Your task to perform on an android device: turn on location history Image 0: 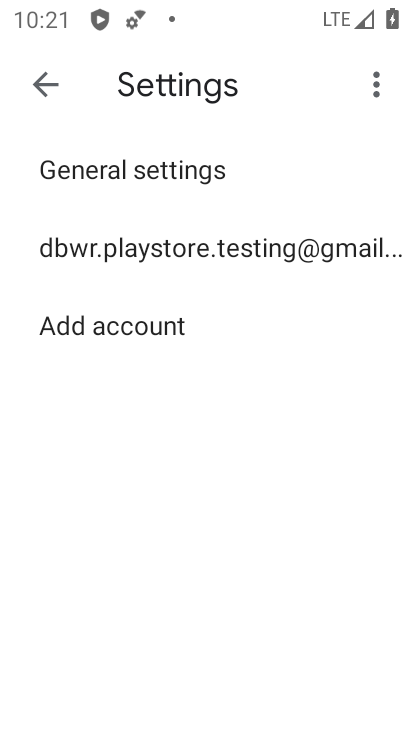
Step 0: press home button
Your task to perform on an android device: turn on location history Image 1: 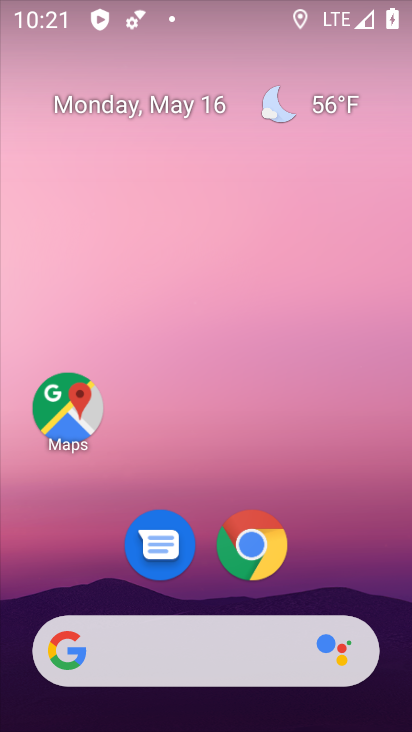
Step 1: drag from (165, 590) to (104, 23)
Your task to perform on an android device: turn on location history Image 2: 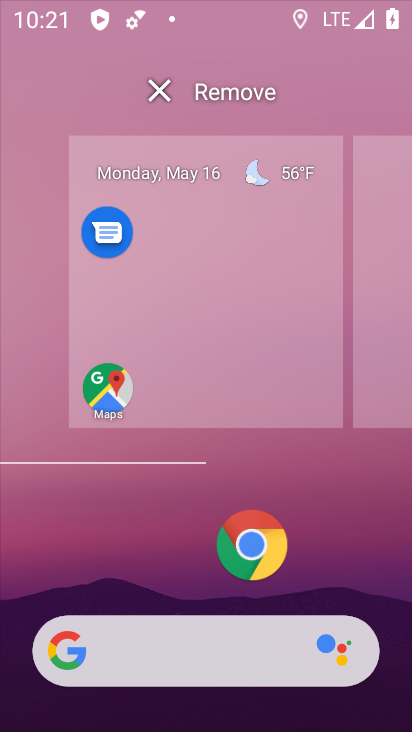
Step 2: drag from (196, 580) to (184, 1)
Your task to perform on an android device: turn on location history Image 3: 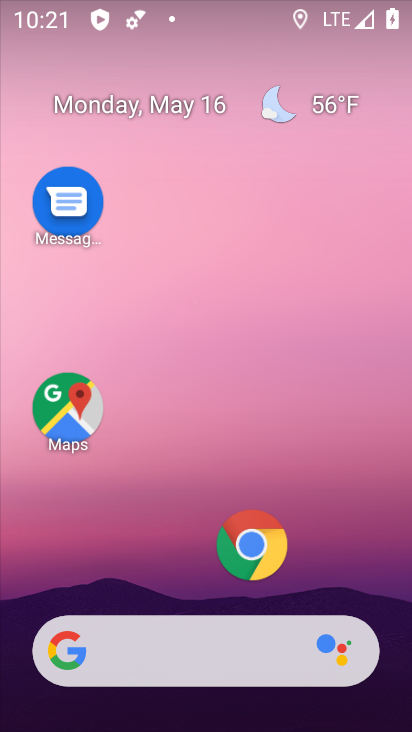
Step 3: drag from (241, 606) to (142, 27)
Your task to perform on an android device: turn on location history Image 4: 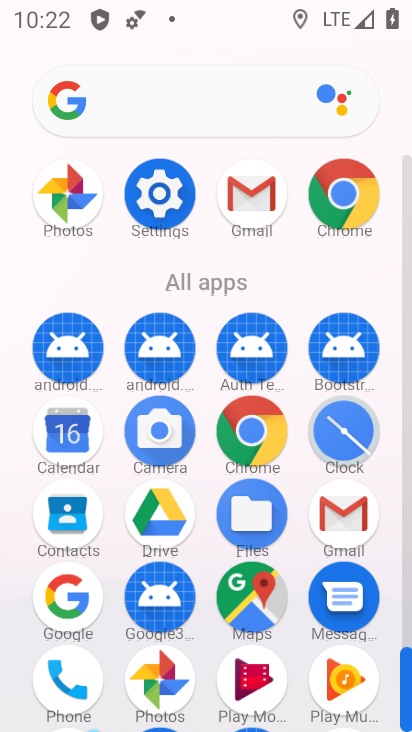
Step 4: click (177, 204)
Your task to perform on an android device: turn on location history Image 5: 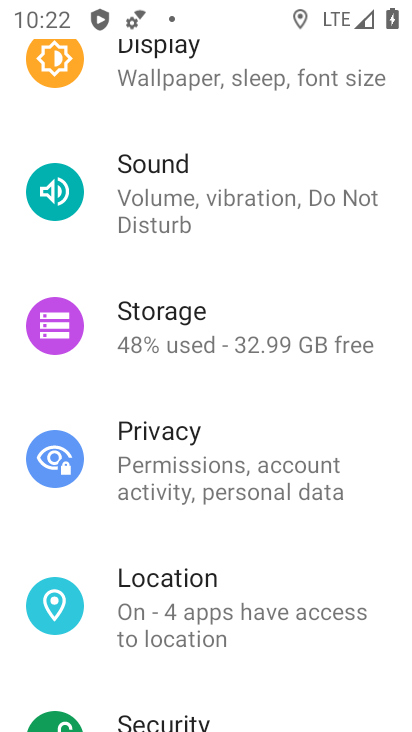
Step 5: click (175, 588)
Your task to perform on an android device: turn on location history Image 6: 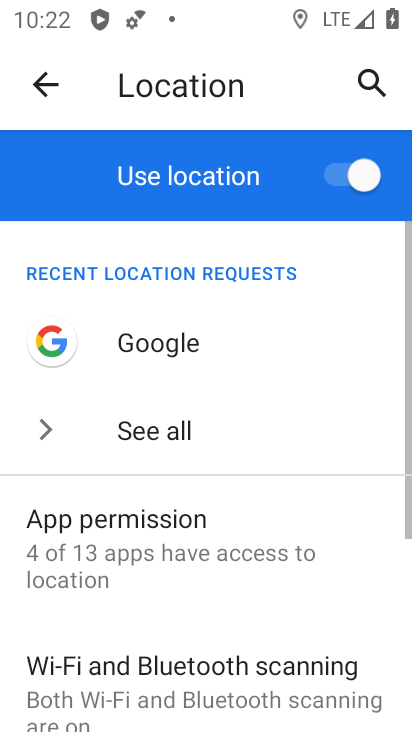
Step 6: drag from (177, 586) to (150, 154)
Your task to perform on an android device: turn on location history Image 7: 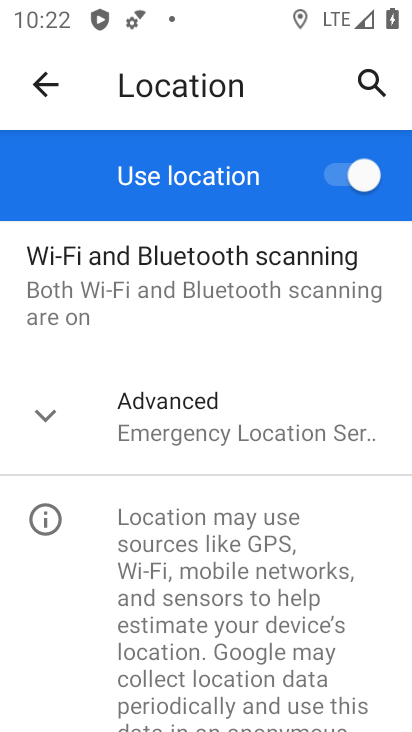
Step 7: click (163, 422)
Your task to perform on an android device: turn on location history Image 8: 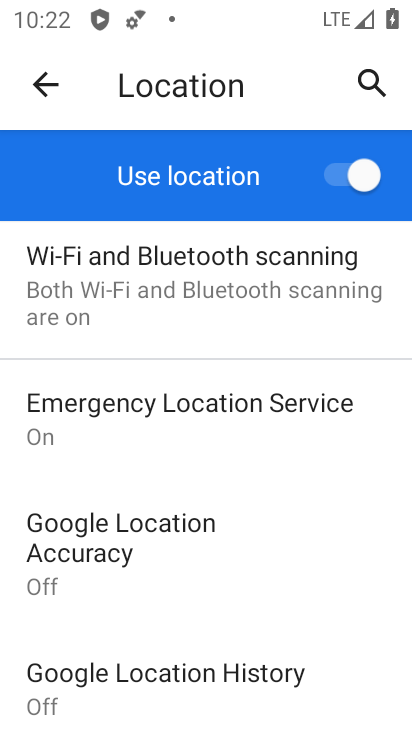
Step 8: click (263, 653)
Your task to perform on an android device: turn on location history Image 9: 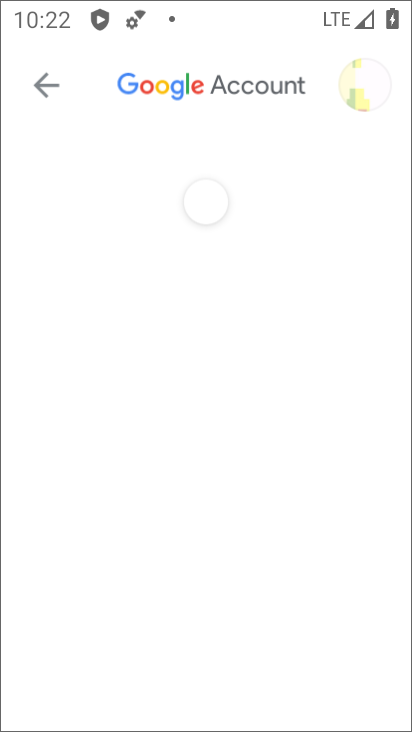
Step 9: task complete